Your task to perform on an android device: see sites visited before in the chrome app Image 0: 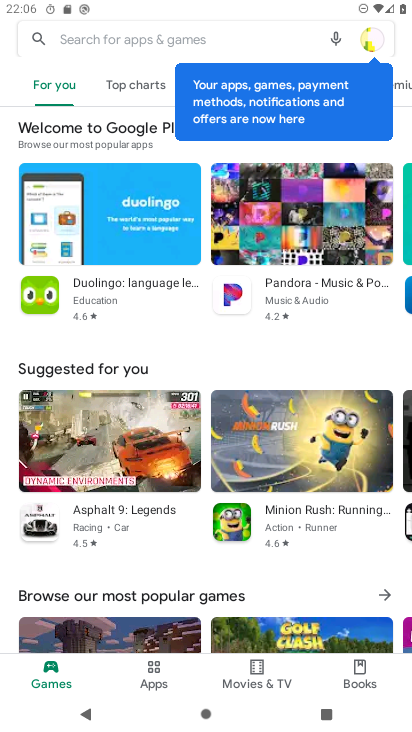
Step 0: press home button
Your task to perform on an android device: see sites visited before in the chrome app Image 1: 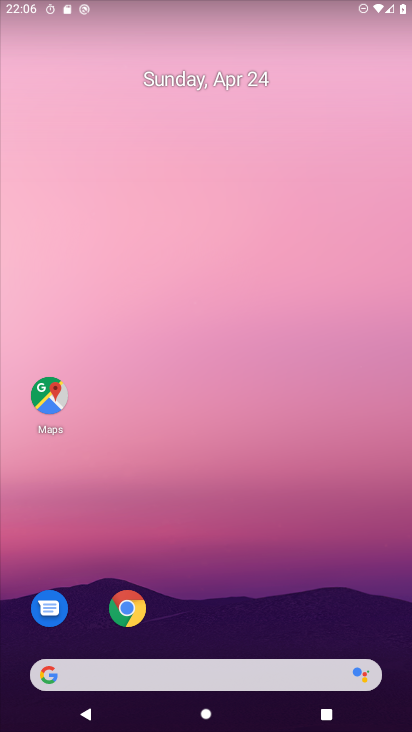
Step 1: click (130, 601)
Your task to perform on an android device: see sites visited before in the chrome app Image 2: 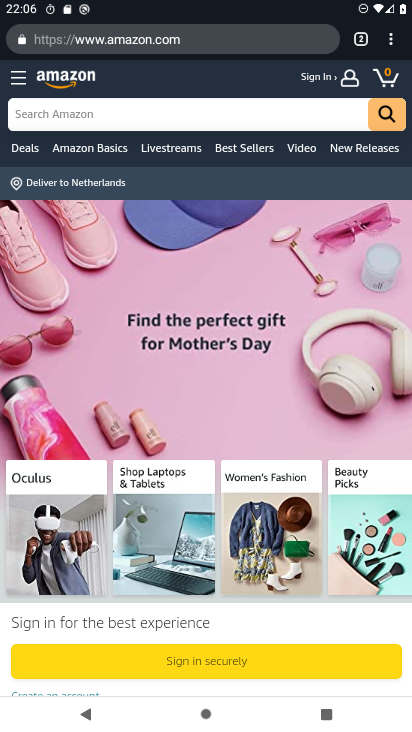
Step 2: click (386, 41)
Your task to perform on an android device: see sites visited before in the chrome app Image 3: 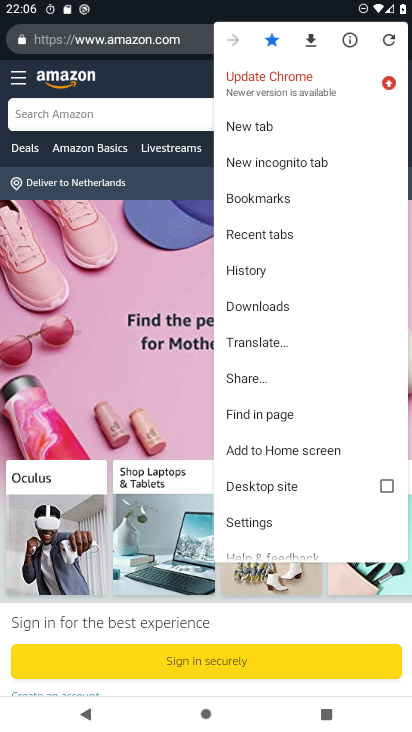
Step 3: click (275, 232)
Your task to perform on an android device: see sites visited before in the chrome app Image 4: 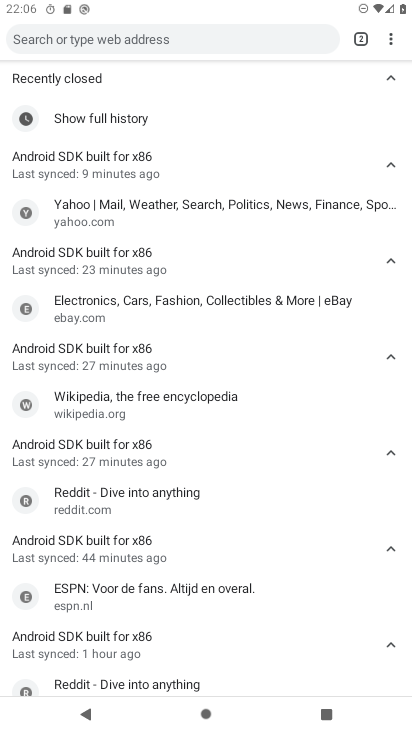
Step 4: task complete